Your task to perform on an android device: turn vacation reply on in the gmail app Image 0: 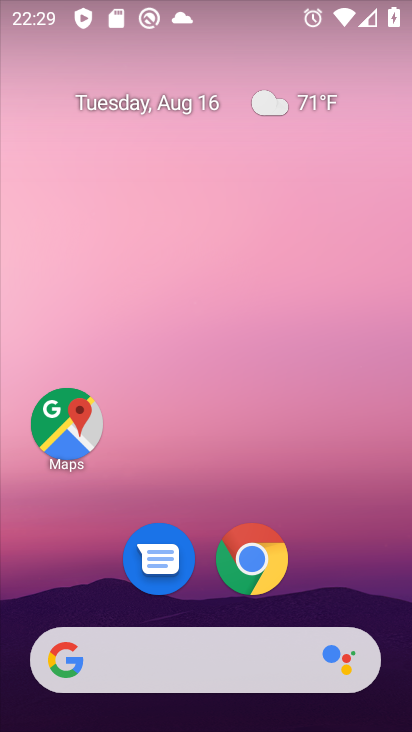
Step 0: drag from (154, 666) to (212, 110)
Your task to perform on an android device: turn vacation reply on in the gmail app Image 1: 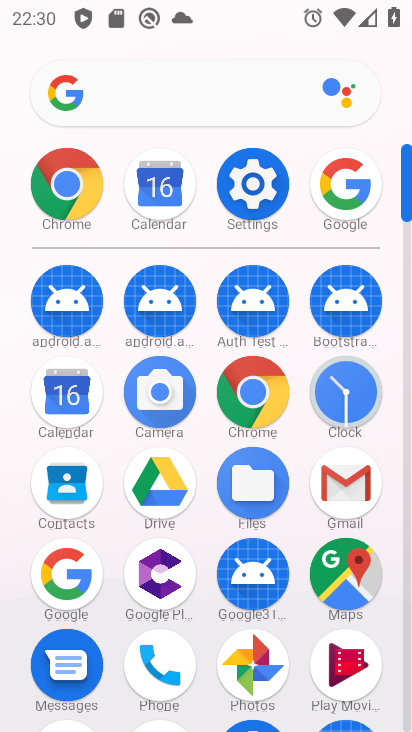
Step 1: click (347, 481)
Your task to perform on an android device: turn vacation reply on in the gmail app Image 2: 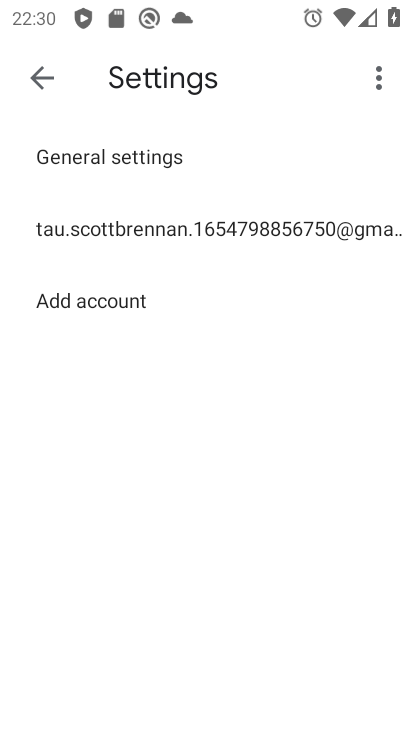
Step 2: press back button
Your task to perform on an android device: turn vacation reply on in the gmail app Image 3: 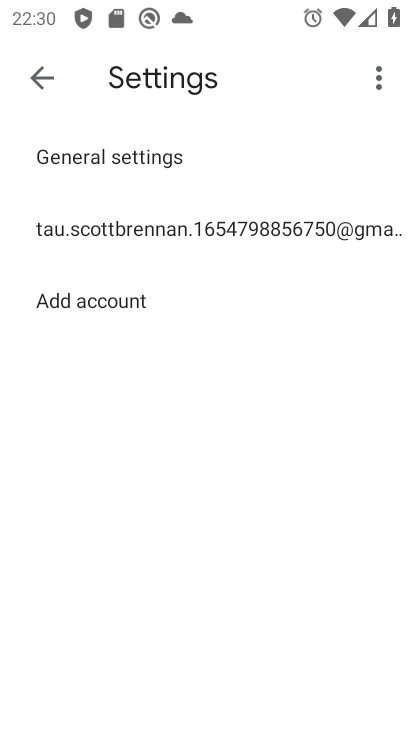
Step 3: press back button
Your task to perform on an android device: turn vacation reply on in the gmail app Image 4: 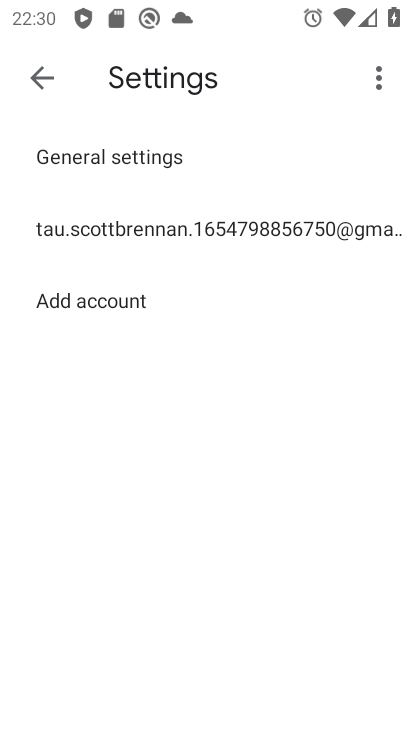
Step 4: press back button
Your task to perform on an android device: turn vacation reply on in the gmail app Image 5: 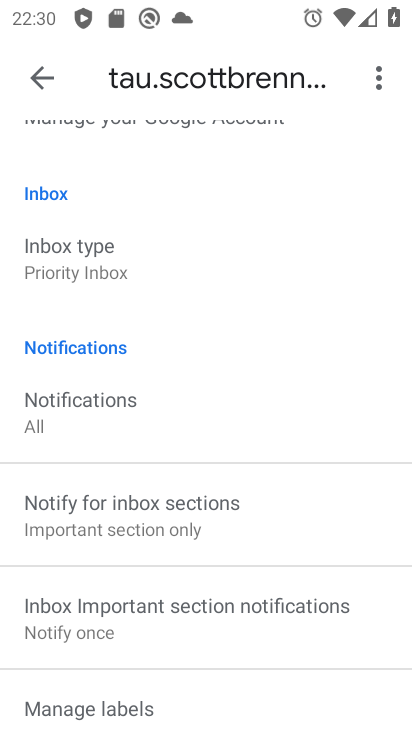
Step 5: press back button
Your task to perform on an android device: turn vacation reply on in the gmail app Image 6: 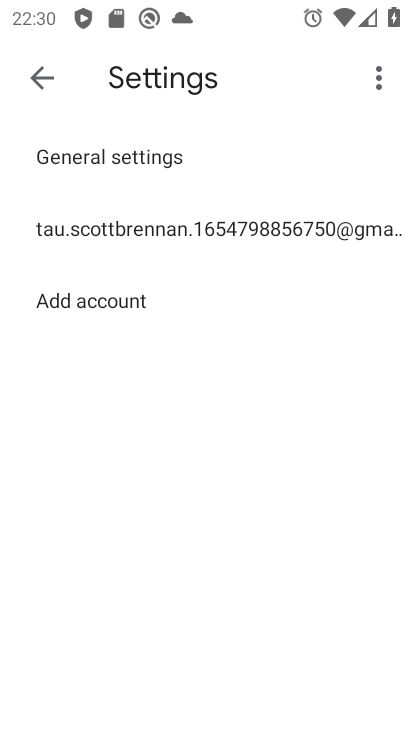
Step 6: press back button
Your task to perform on an android device: turn vacation reply on in the gmail app Image 7: 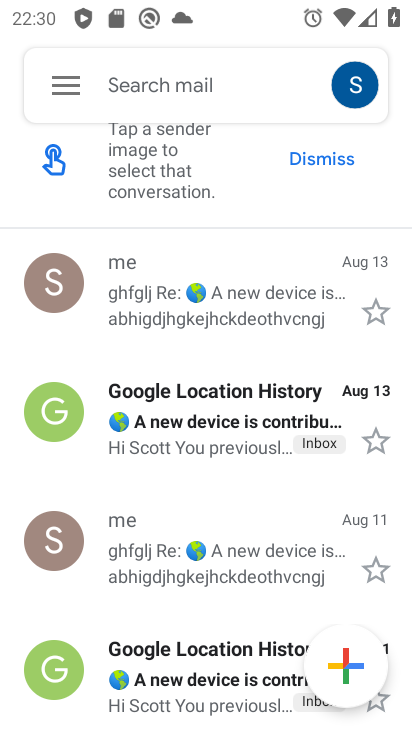
Step 7: click (65, 87)
Your task to perform on an android device: turn vacation reply on in the gmail app Image 8: 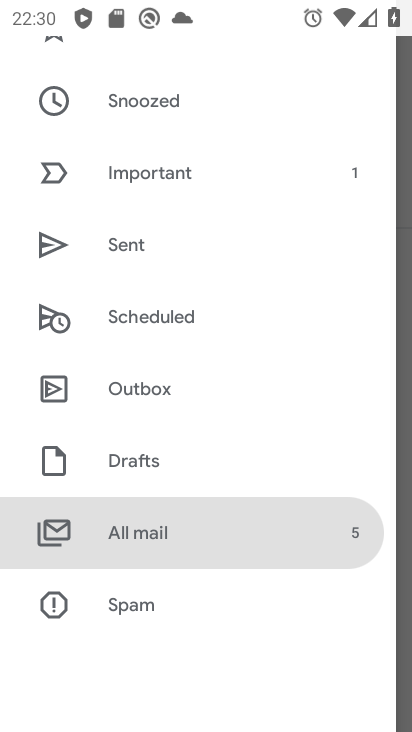
Step 8: drag from (182, 476) to (213, 367)
Your task to perform on an android device: turn vacation reply on in the gmail app Image 9: 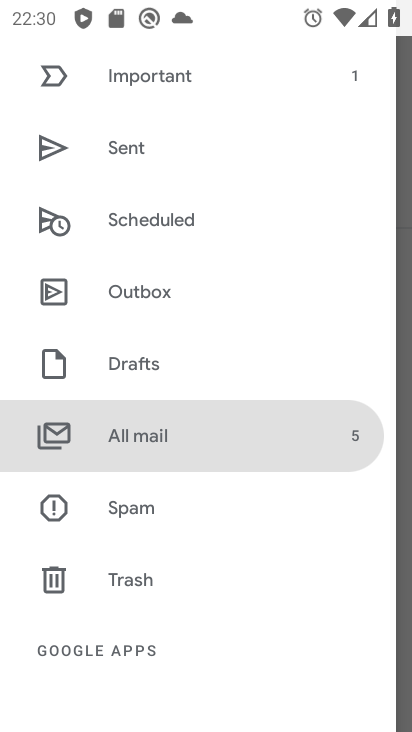
Step 9: drag from (209, 541) to (236, 406)
Your task to perform on an android device: turn vacation reply on in the gmail app Image 10: 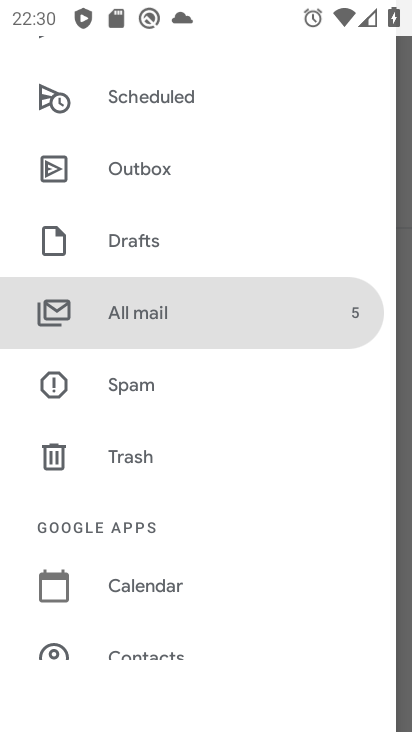
Step 10: drag from (210, 611) to (233, 448)
Your task to perform on an android device: turn vacation reply on in the gmail app Image 11: 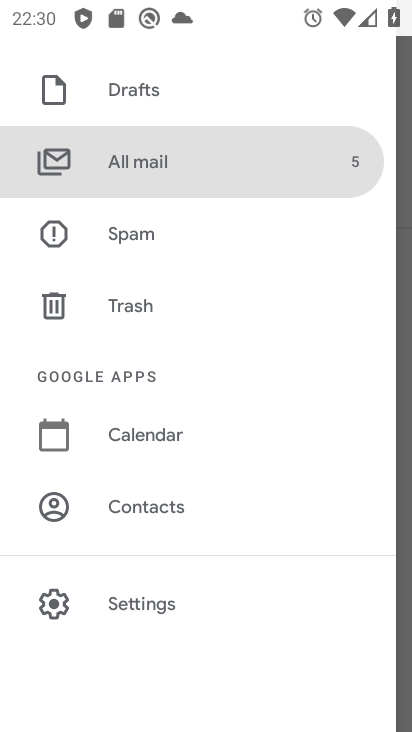
Step 11: click (147, 600)
Your task to perform on an android device: turn vacation reply on in the gmail app Image 12: 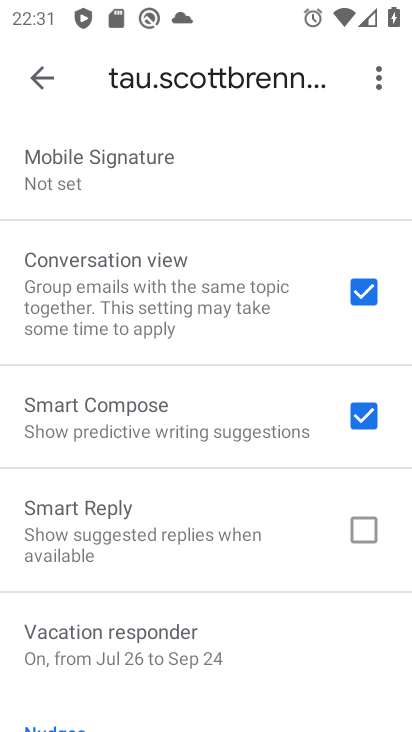
Step 12: click (135, 654)
Your task to perform on an android device: turn vacation reply on in the gmail app Image 13: 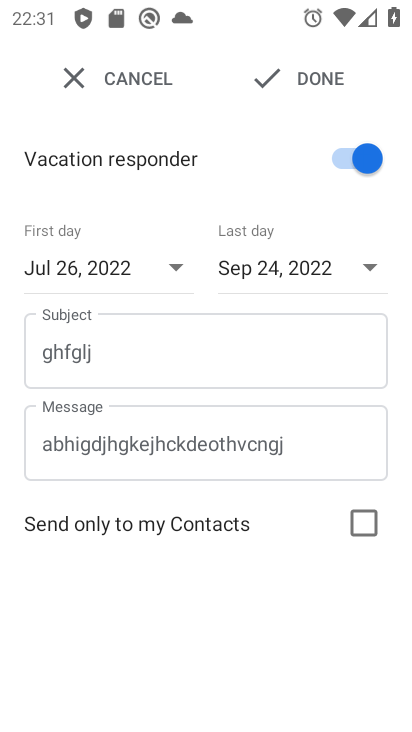
Step 13: task complete